Your task to perform on an android device: turn off location Image 0: 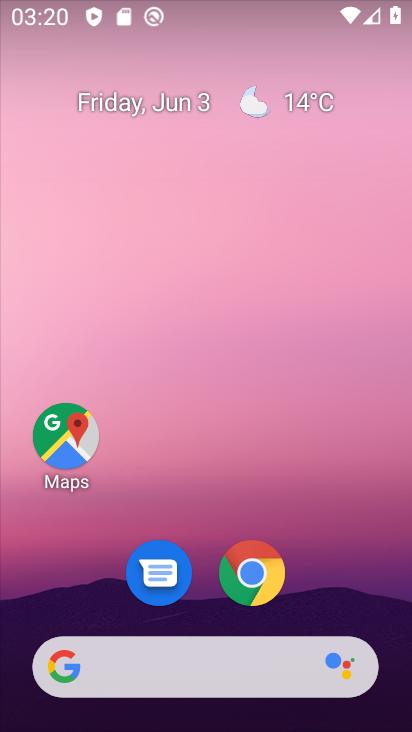
Step 0: drag from (136, 634) to (149, 50)
Your task to perform on an android device: turn off location Image 1: 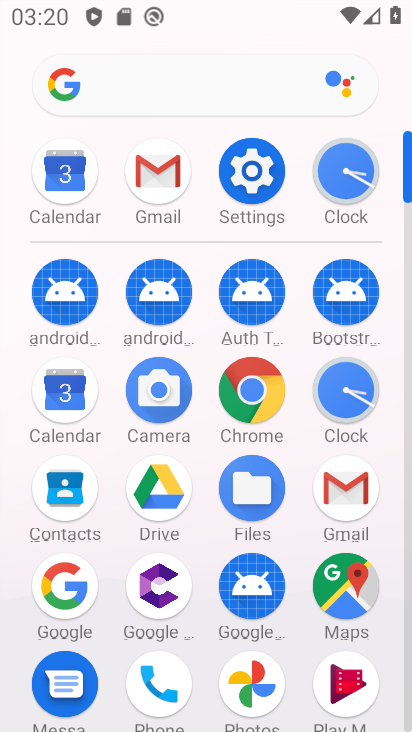
Step 1: click (250, 176)
Your task to perform on an android device: turn off location Image 2: 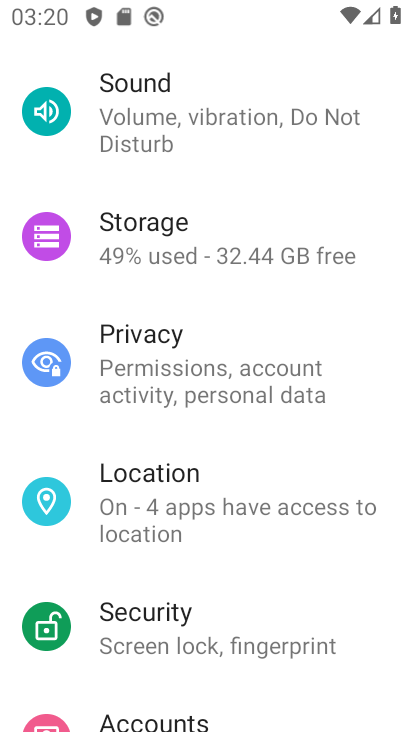
Step 2: click (197, 459)
Your task to perform on an android device: turn off location Image 3: 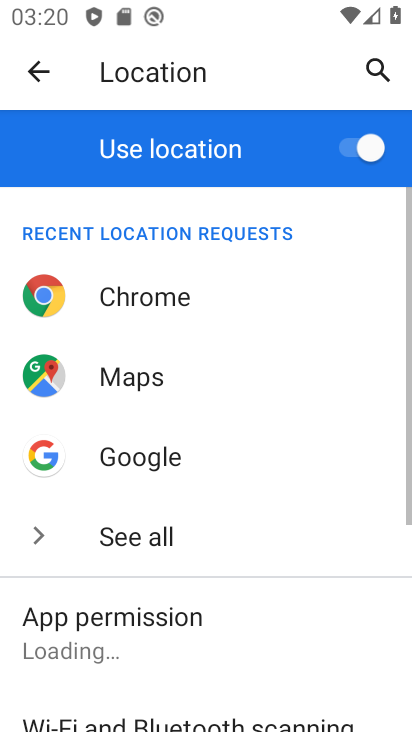
Step 3: click (360, 150)
Your task to perform on an android device: turn off location Image 4: 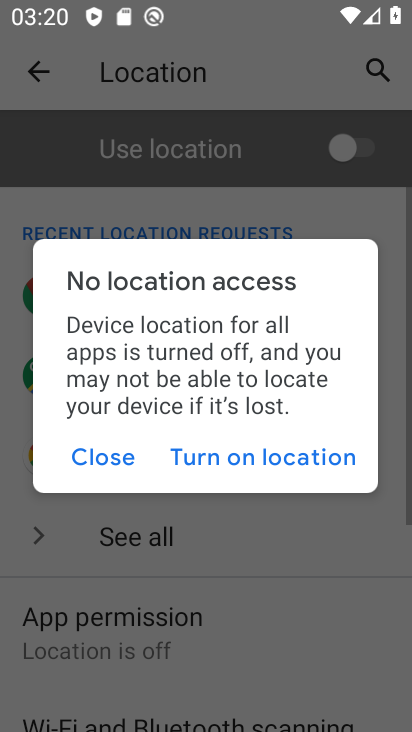
Step 4: task complete